Your task to perform on an android device: uninstall "Facebook Messenger" Image 0: 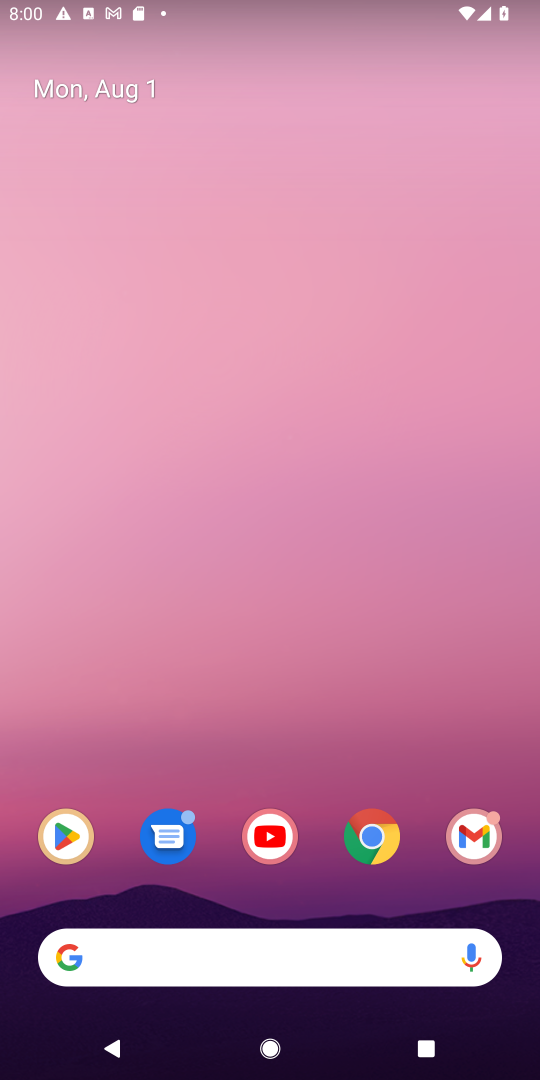
Step 0: press home button
Your task to perform on an android device: uninstall "Facebook Messenger" Image 1: 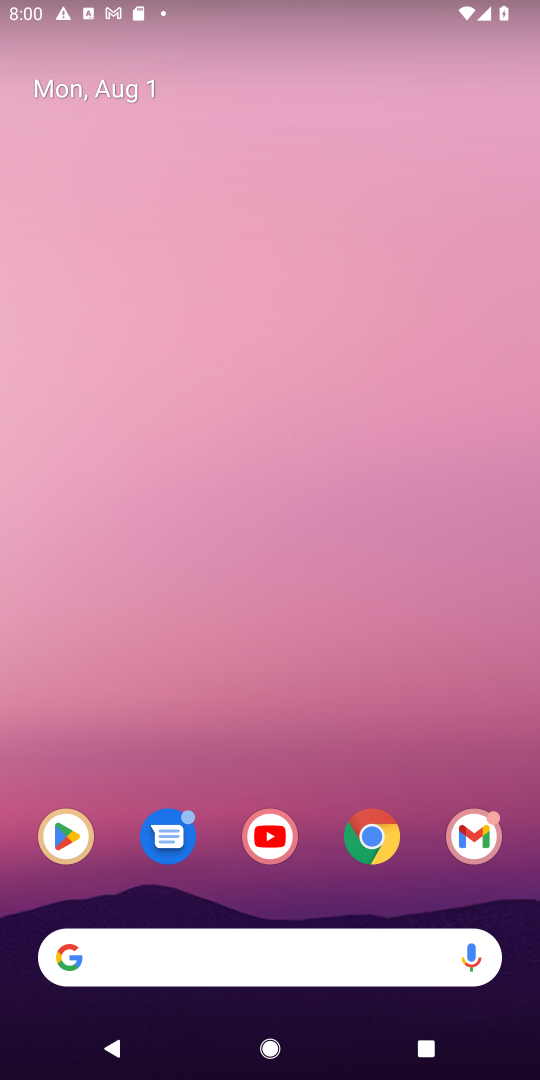
Step 1: click (62, 841)
Your task to perform on an android device: uninstall "Facebook Messenger" Image 2: 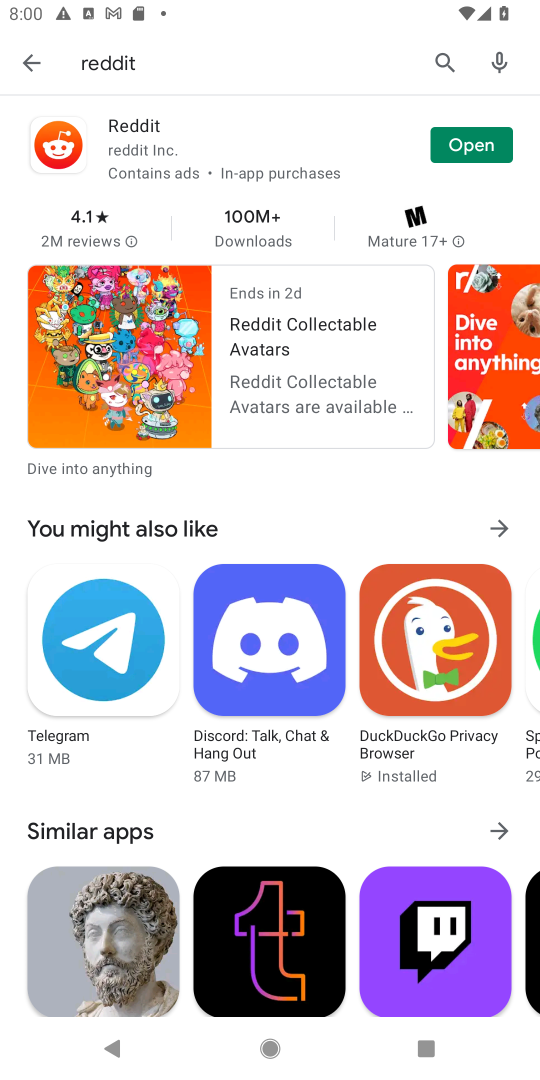
Step 2: click (439, 66)
Your task to perform on an android device: uninstall "Facebook Messenger" Image 3: 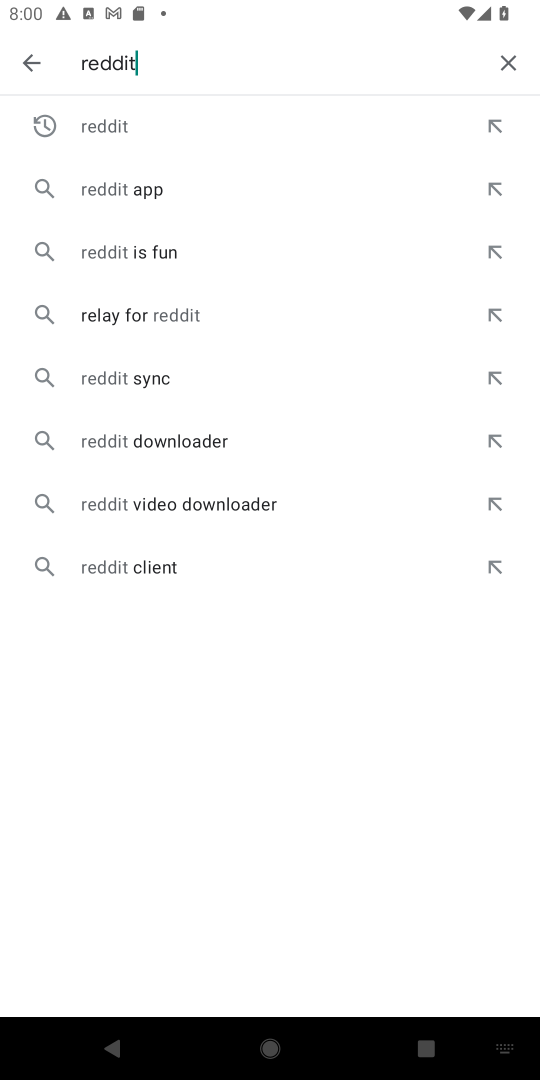
Step 3: click (506, 57)
Your task to perform on an android device: uninstall "Facebook Messenger" Image 4: 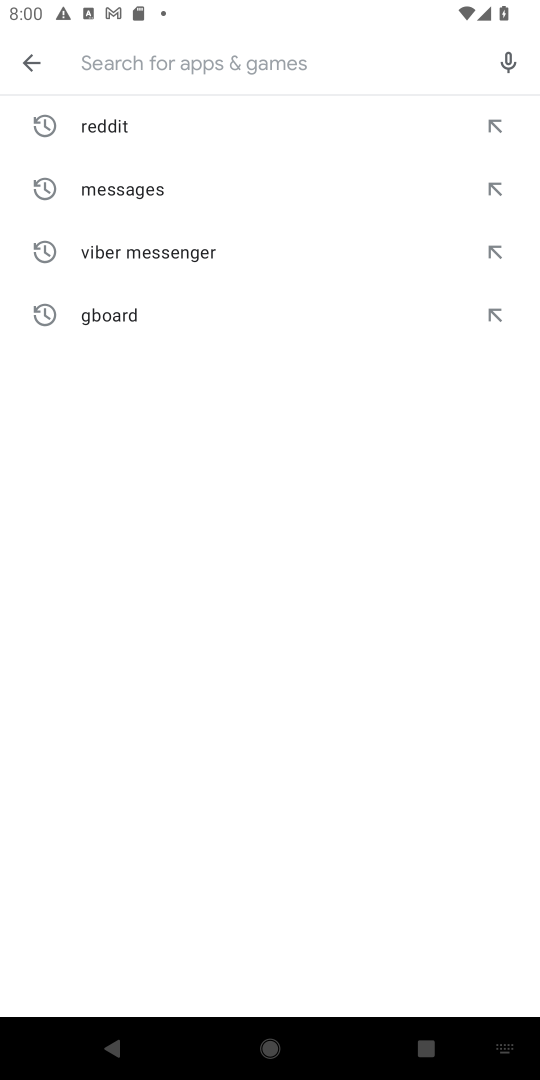
Step 4: type "Facebook Messenger"
Your task to perform on an android device: uninstall "Facebook Messenger" Image 5: 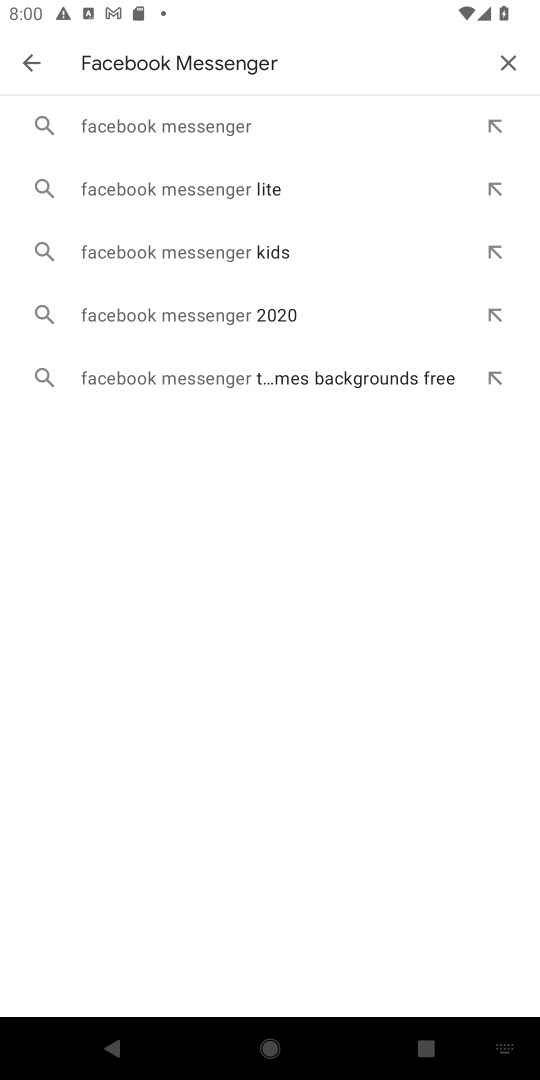
Step 5: click (196, 113)
Your task to perform on an android device: uninstall "Facebook Messenger" Image 6: 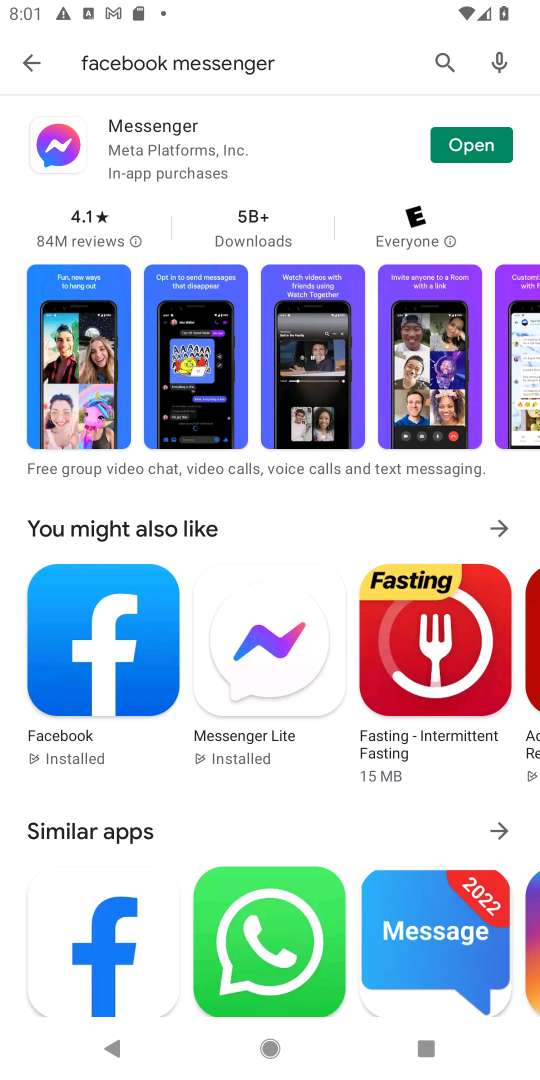
Step 6: click (146, 142)
Your task to perform on an android device: uninstall "Facebook Messenger" Image 7: 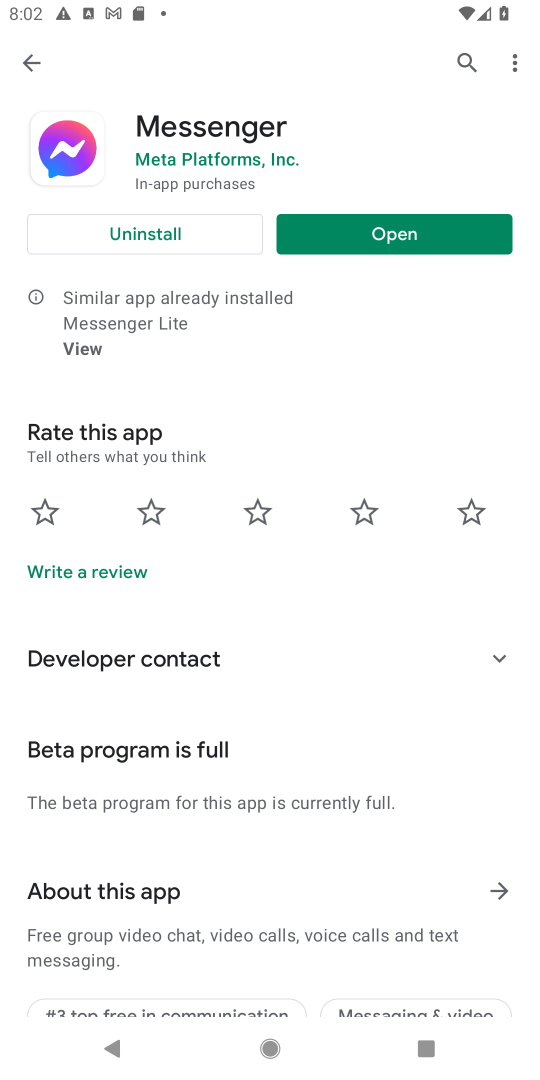
Step 7: click (199, 232)
Your task to perform on an android device: uninstall "Facebook Messenger" Image 8: 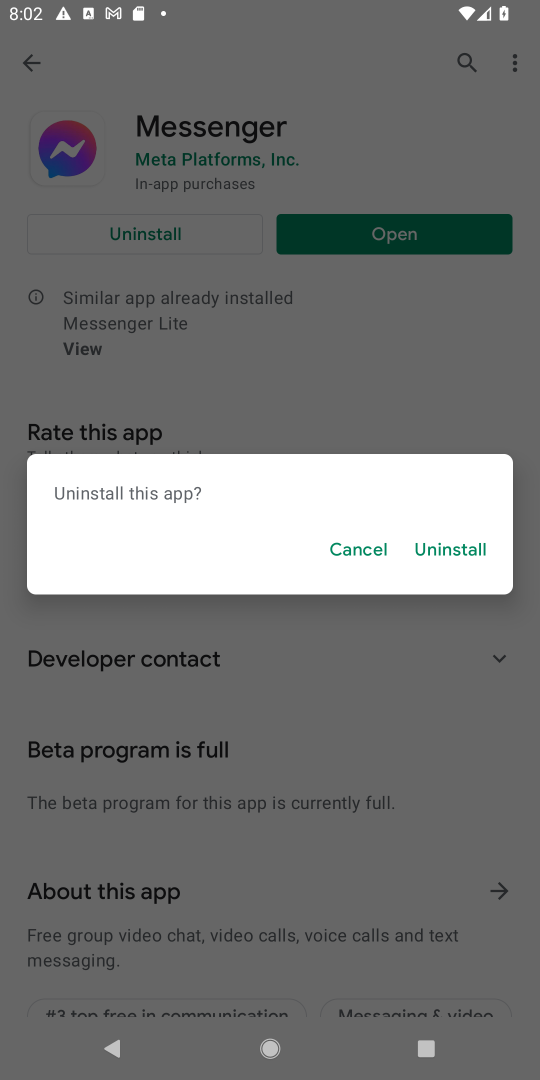
Step 8: click (463, 552)
Your task to perform on an android device: uninstall "Facebook Messenger" Image 9: 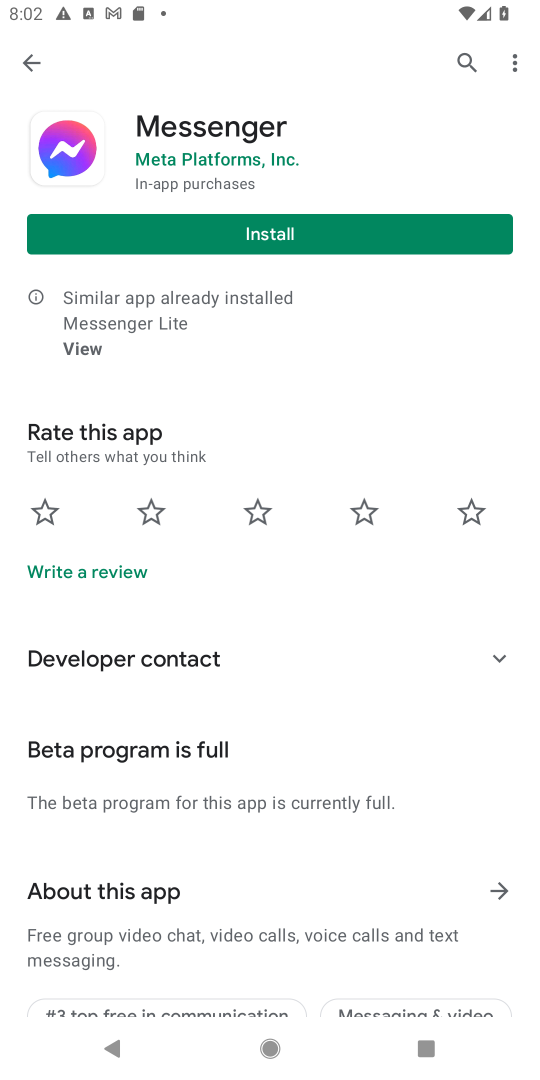
Step 9: task complete